Your task to perform on an android device: Show me popular games on the Play Store Image 0: 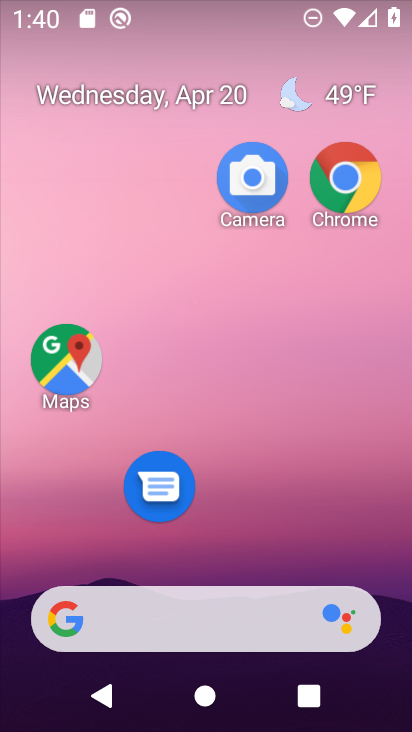
Step 0: drag from (274, 652) to (225, 238)
Your task to perform on an android device: Show me popular games on the Play Store Image 1: 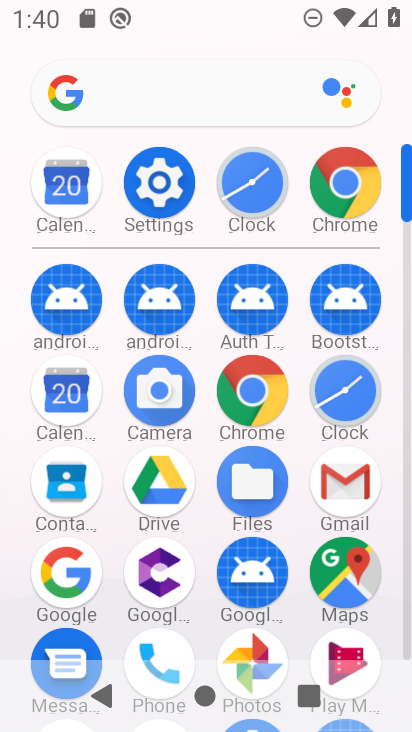
Step 1: drag from (201, 519) to (214, 301)
Your task to perform on an android device: Show me popular games on the Play Store Image 2: 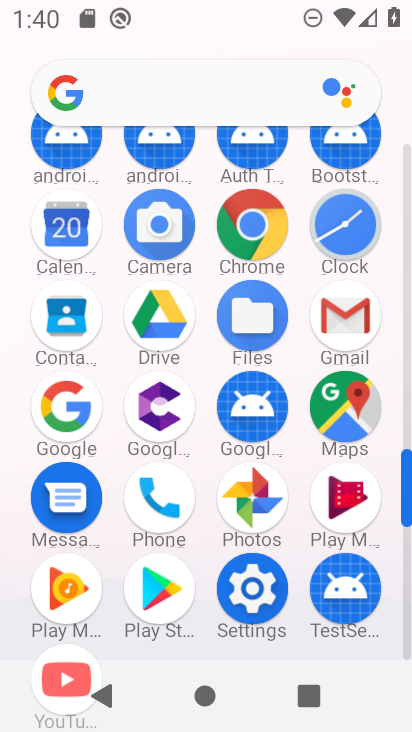
Step 2: click (163, 566)
Your task to perform on an android device: Show me popular games on the Play Store Image 3: 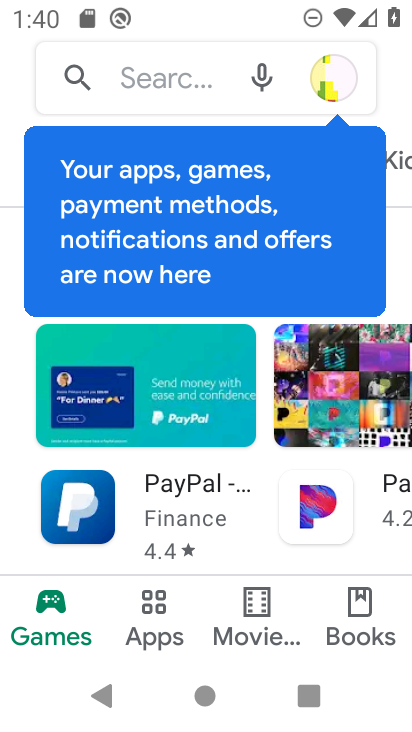
Step 3: click (152, 90)
Your task to perform on an android device: Show me popular games on the Play Store Image 4: 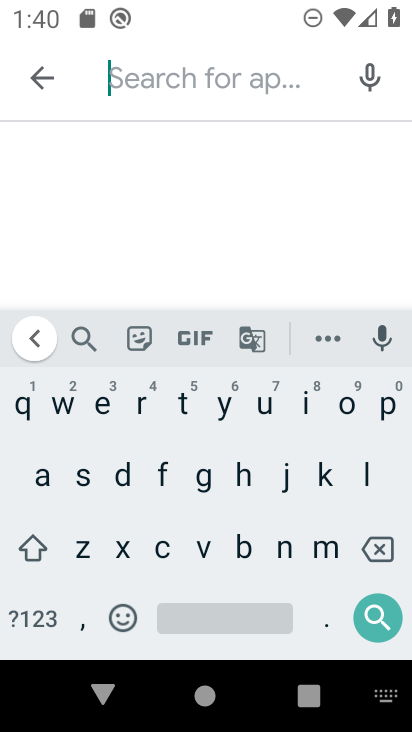
Step 4: click (380, 409)
Your task to perform on an android device: Show me popular games on the Play Store Image 5: 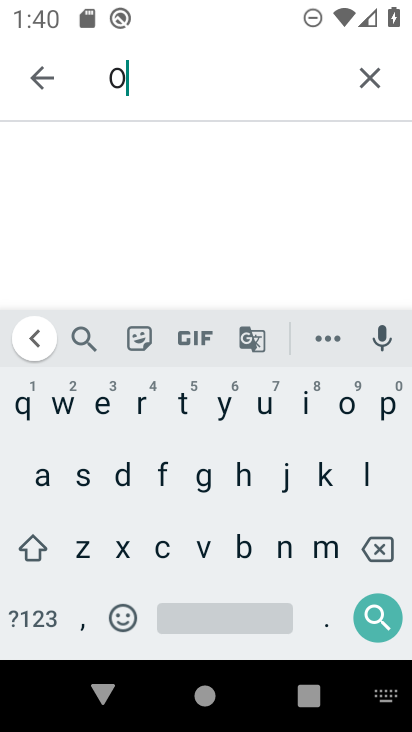
Step 5: click (382, 411)
Your task to perform on an android device: Show me popular games on the Play Store Image 6: 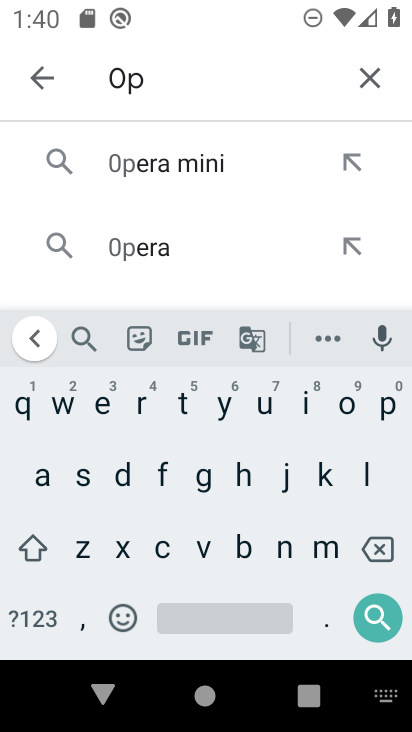
Step 6: click (372, 74)
Your task to perform on an android device: Show me popular games on the Play Store Image 7: 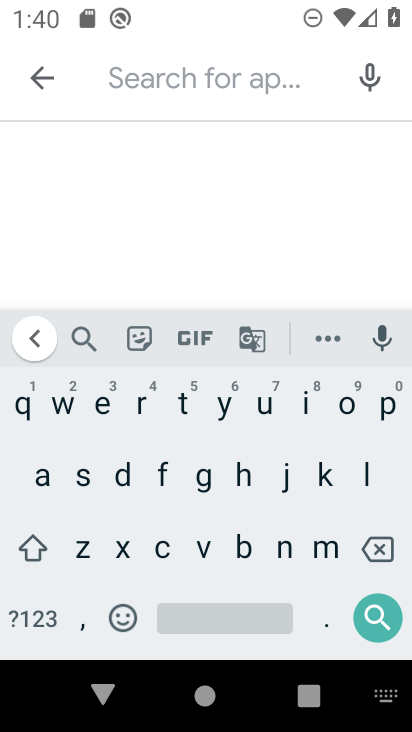
Step 7: click (377, 413)
Your task to perform on an android device: Show me popular games on the Play Store Image 8: 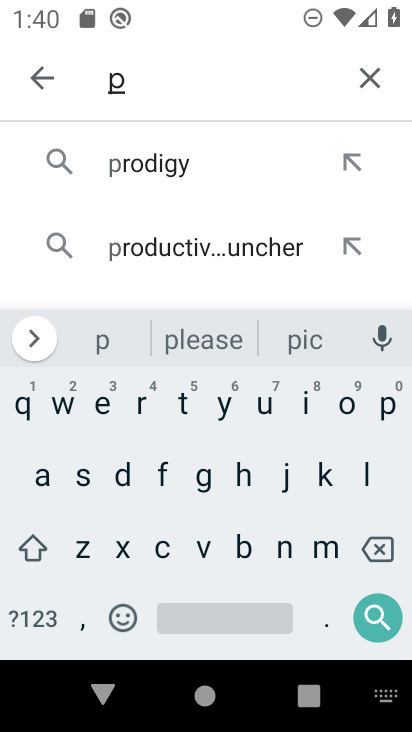
Step 8: click (339, 405)
Your task to perform on an android device: Show me popular games on the Play Store Image 9: 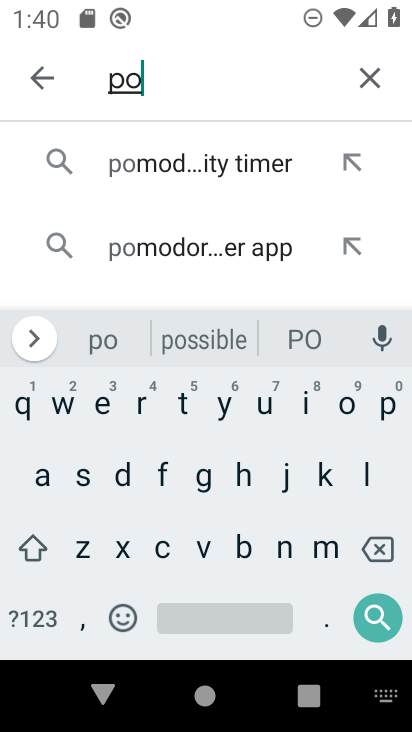
Step 9: click (380, 413)
Your task to perform on an android device: Show me popular games on the Play Store Image 10: 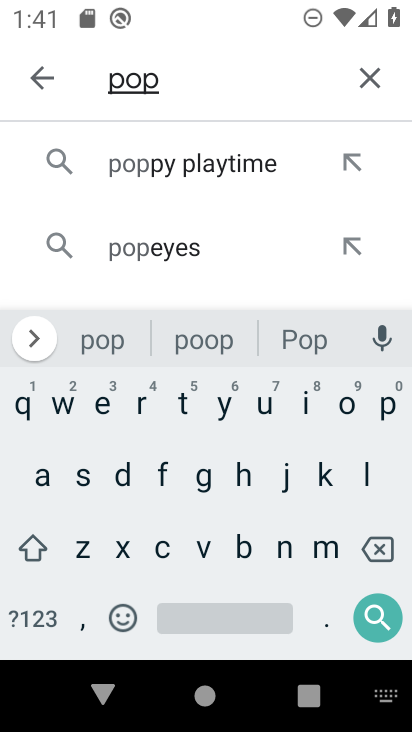
Step 10: click (265, 409)
Your task to perform on an android device: Show me popular games on the Play Store Image 11: 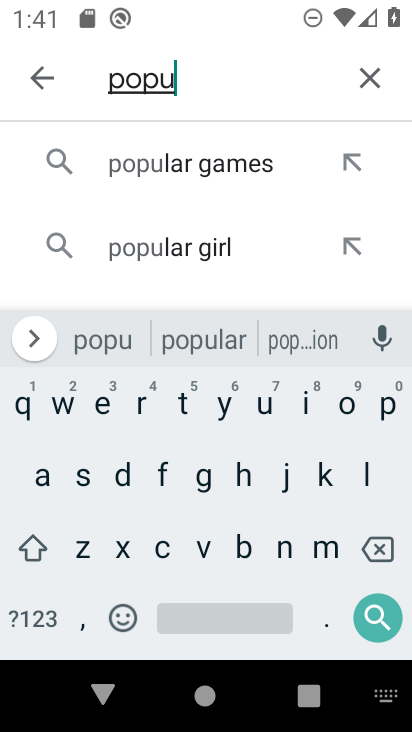
Step 11: click (207, 187)
Your task to perform on an android device: Show me popular games on the Play Store Image 12: 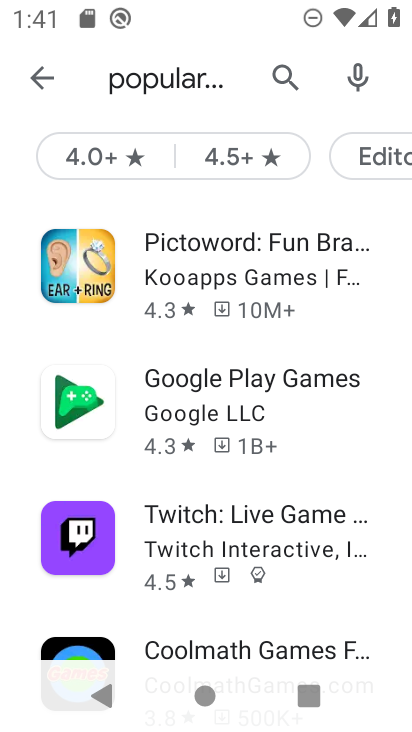
Step 12: task complete